Your task to perform on an android device: Open internet settings Image 0: 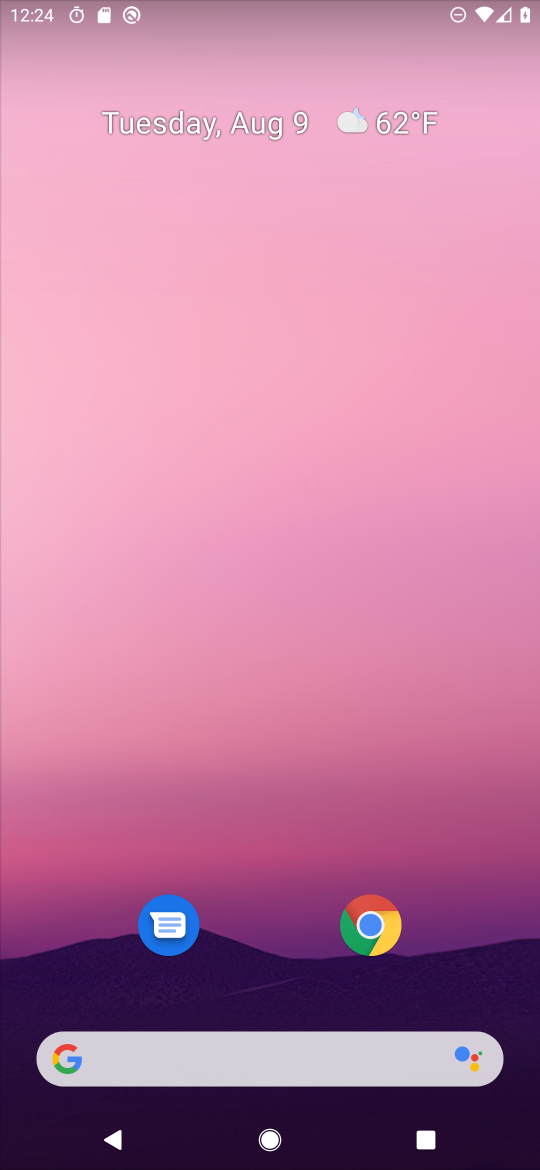
Step 0: drag from (259, 660) to (350, 29)
Your task to perform on an android device: Open internet settings Image 1: 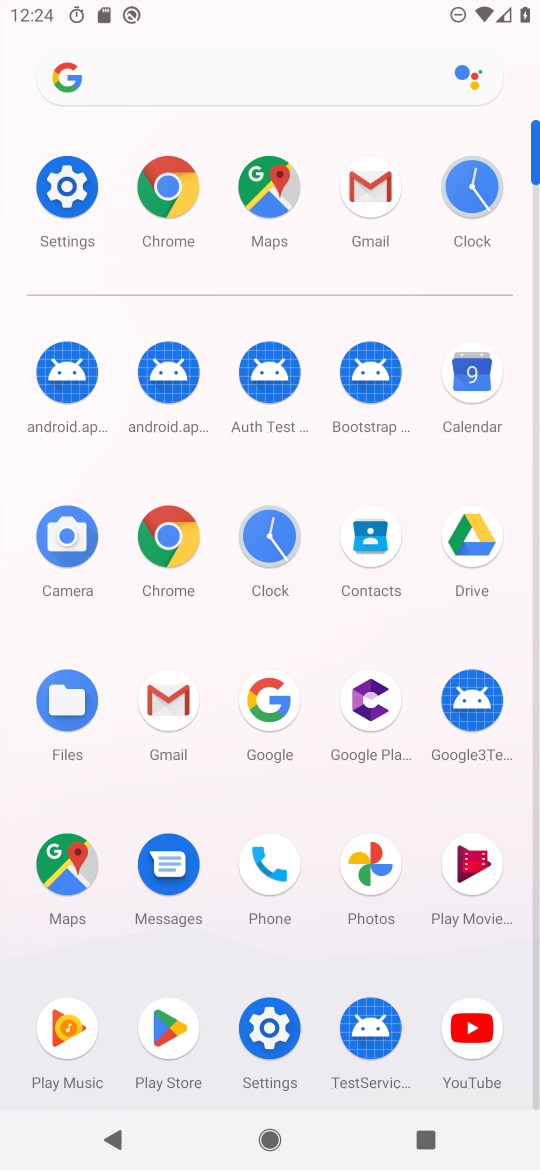
Step 1: click (68, 183)
Your task to perform on an android device: Open internet settings Image 2: 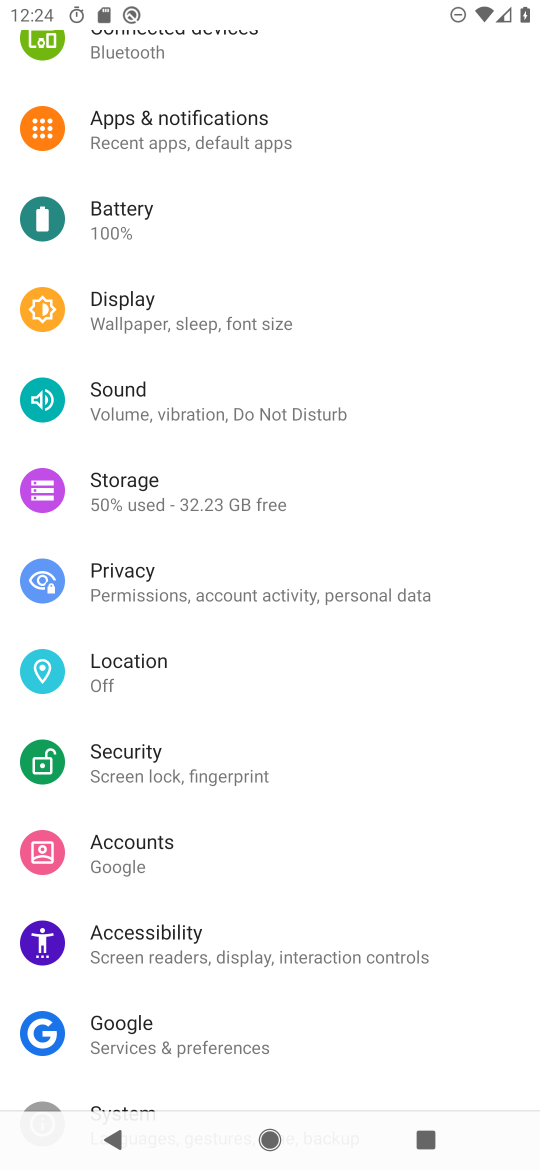
Step 2: drag from (261, 109) to (213, 678)
Your task to perform on an android device: Open internet settings Image 3: 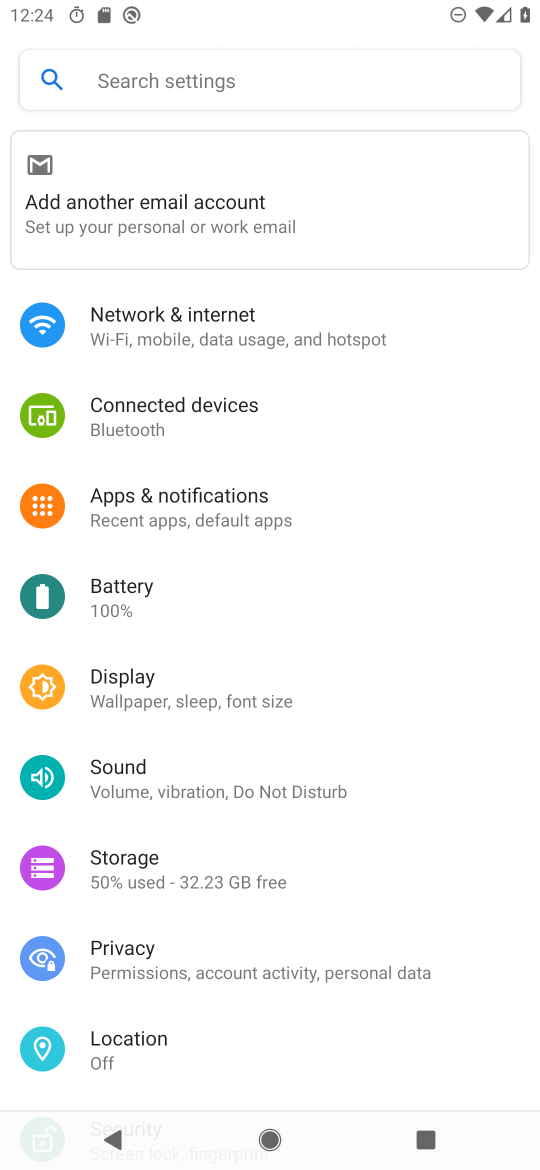
Step 3: click (199, 322)
Your task to perform on an android device: Open internet settings Image 4: 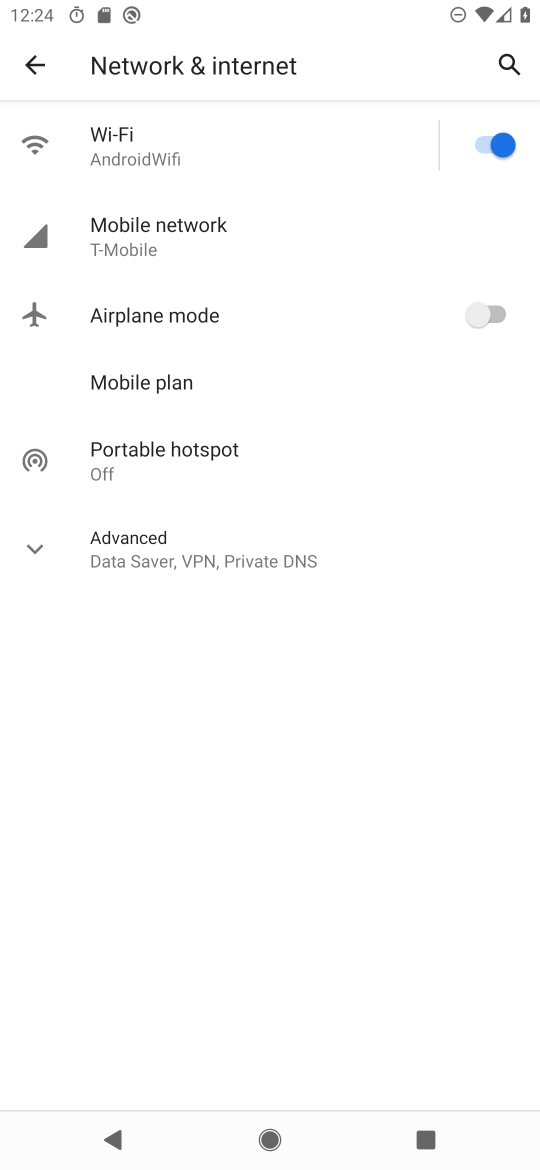
Step 4: click (147, 559)
Your task to perform on an android device: Open internet settings Image 5: 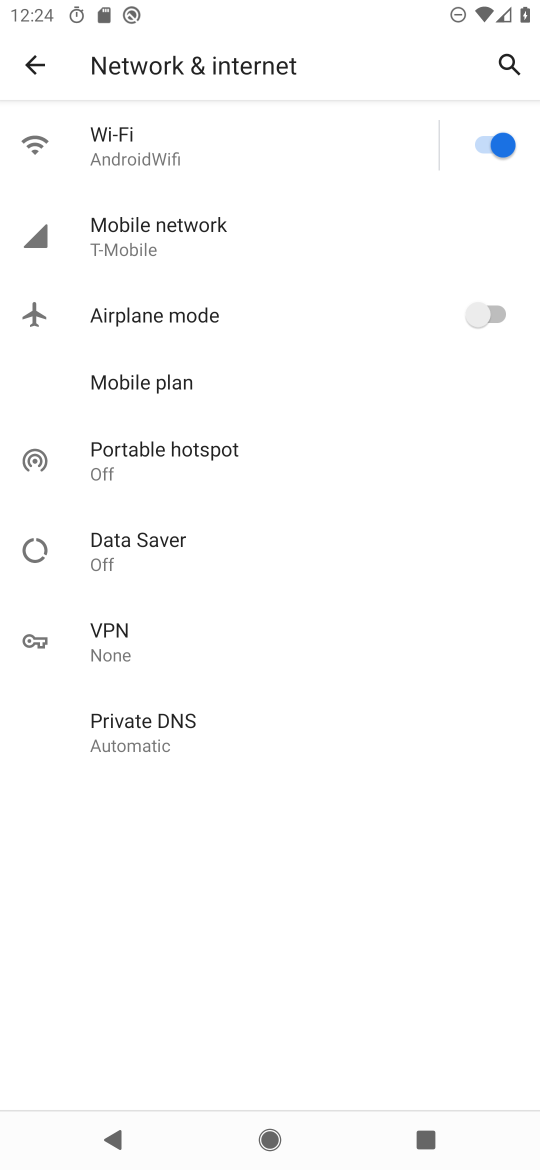
Step 5: task complete